Your task to perform on an android device: snooze an email in the gmail app Image 0: 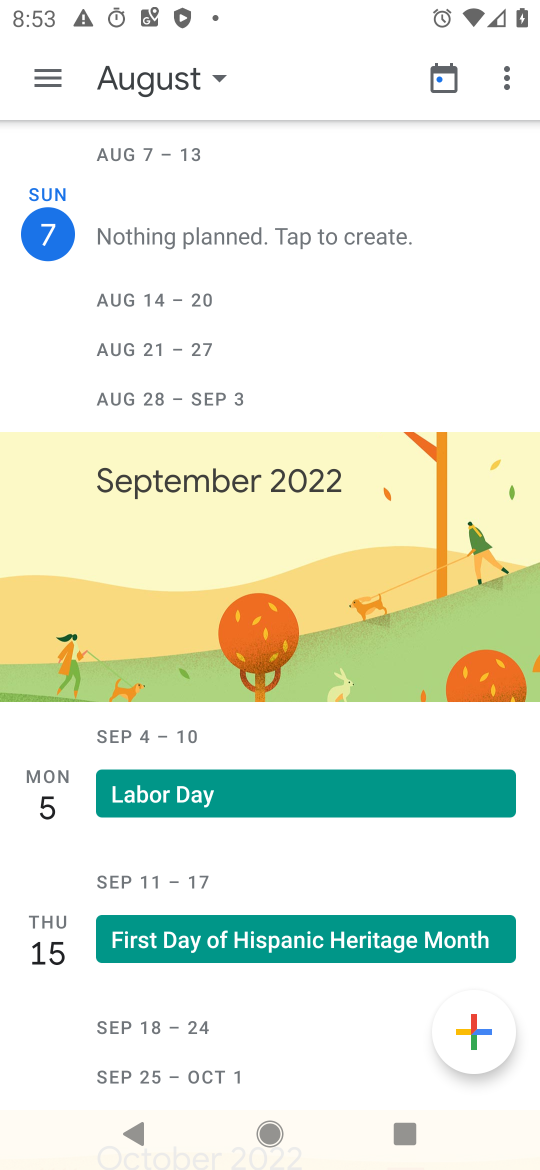
Step 0: press home button
Your task to perform on an android device: snooze an email in the gmail app Image 1: 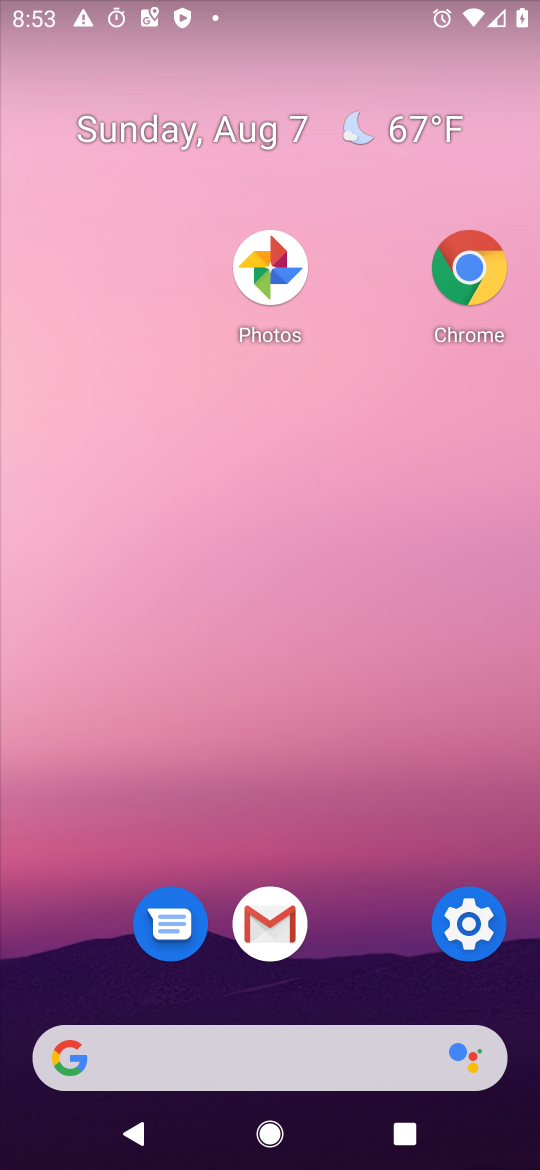
Step 1: click (280, 935)
Your task to perform on an android device: snooze an email in the gmail app Image 2: 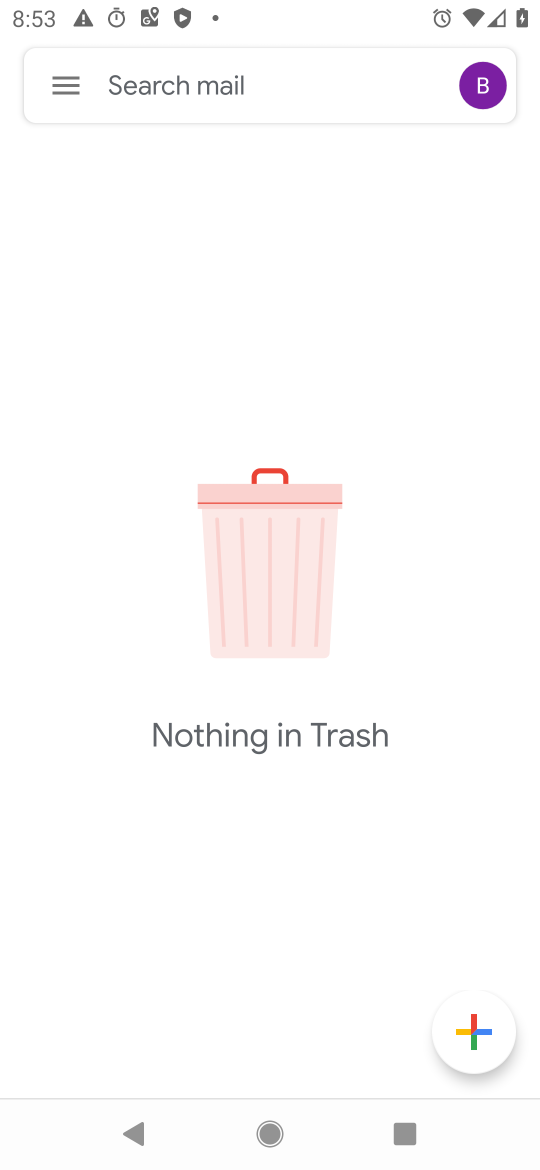
Step 2: click (62, 76)
Your task to perform on an android device: snooze an email in the gmail app Image 3: 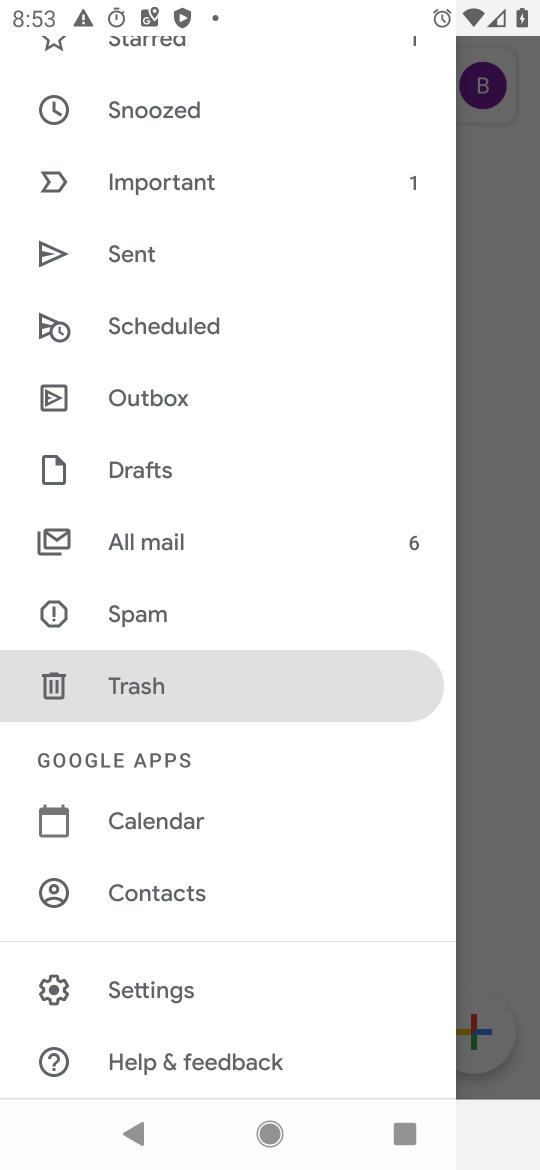
Step 3: click (180, 547)
Your task to perform on an android device: snooze an email in the gmail app Image 4: 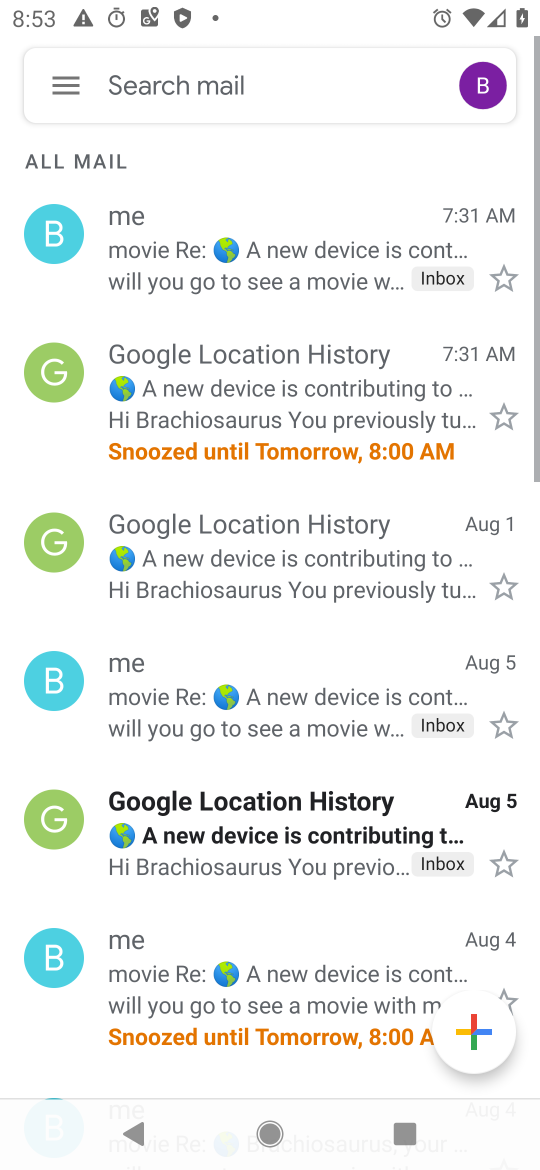
Step 4: click (208, 674)
Your task to perform on an android device: snooze an email in the gmail app Image 5: 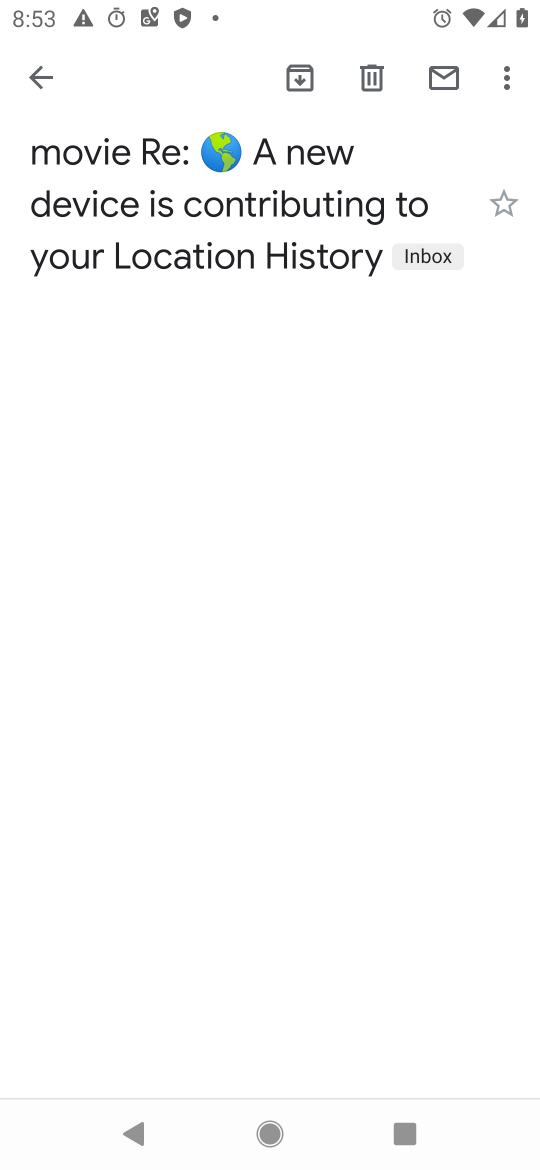
Step 5: click (499, 78)
Your task to perform on an android device: snooze an email in the gmail app Image 6: 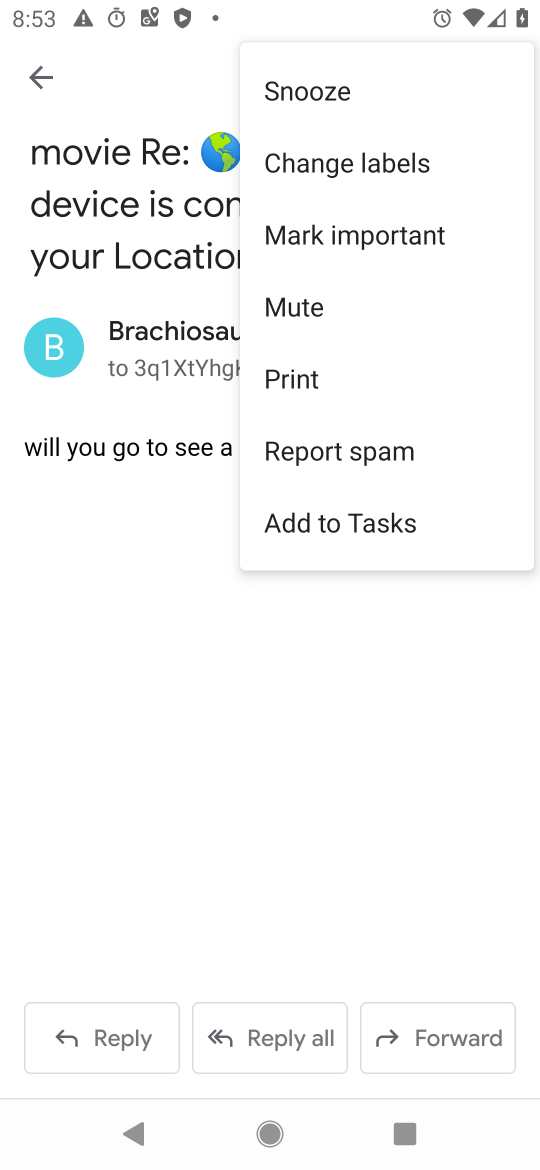
Step 6: click (322, 100)
Your task to perform on an android device: snooze an email in the gmail app Image 7: 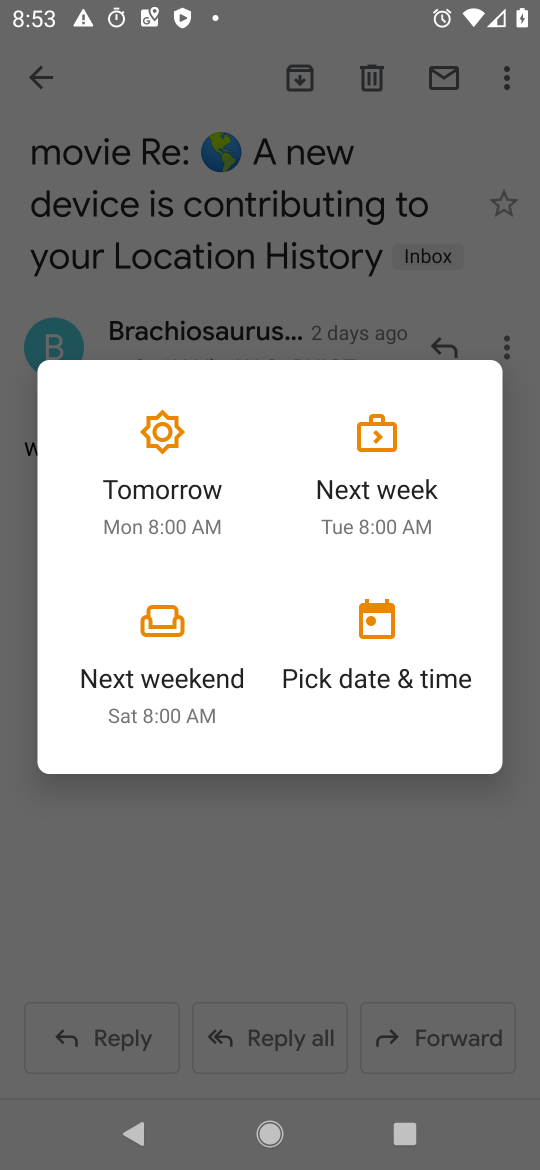
Step 7: click (184, 480)
Your task to perform on an android device: snooze an email in the gmail app Image 8: 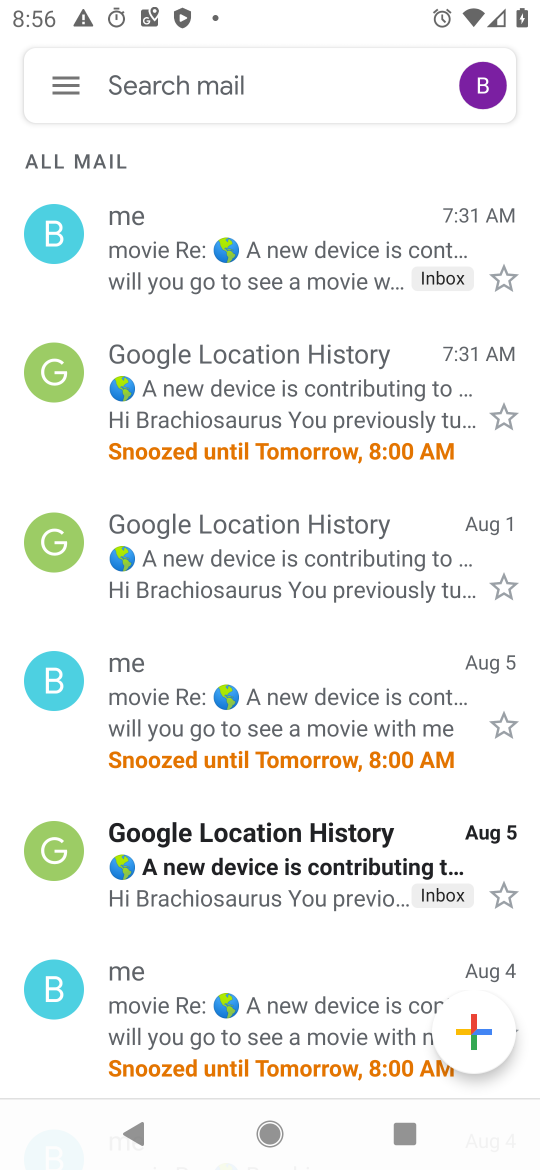
Step 8: click (78, 85)
Your task to perform on an android device: snooze an email in the gmail app Image 9: 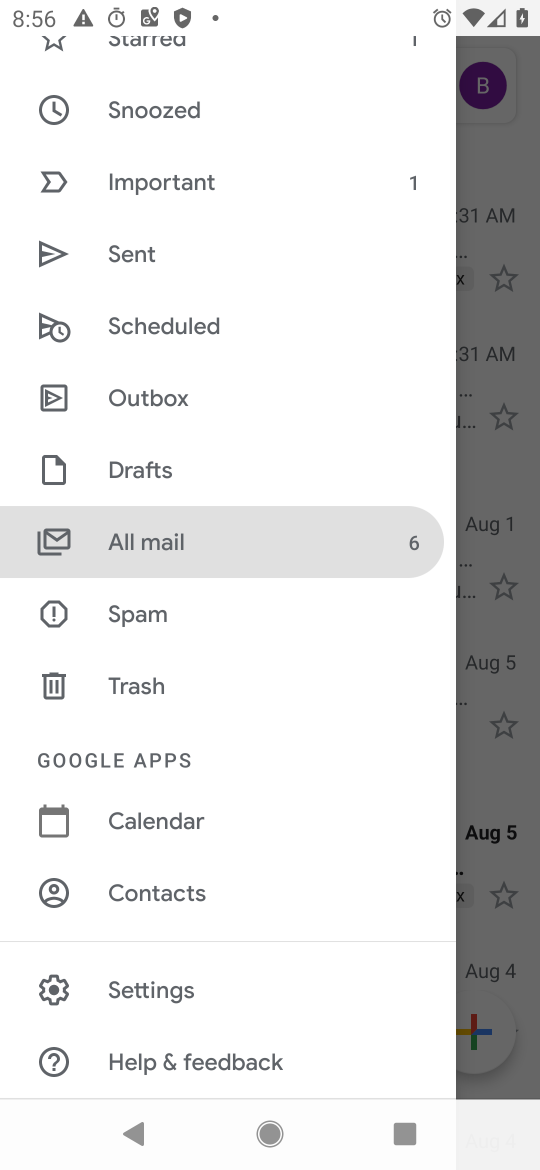
Step 9: drag from (189, 368) to (264, 501)
Your task to perform on an android device: snooze an email in the gmail app Image 10: 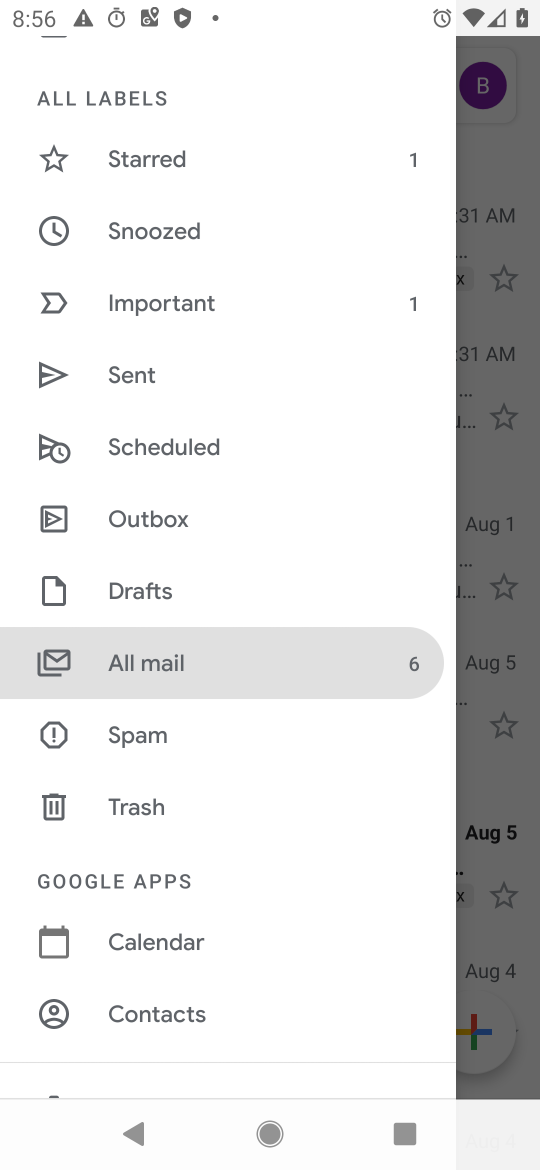
Step 10: click (167, 216)
Your task to perform on an android device: snooze an email in the gmail app Image 11: 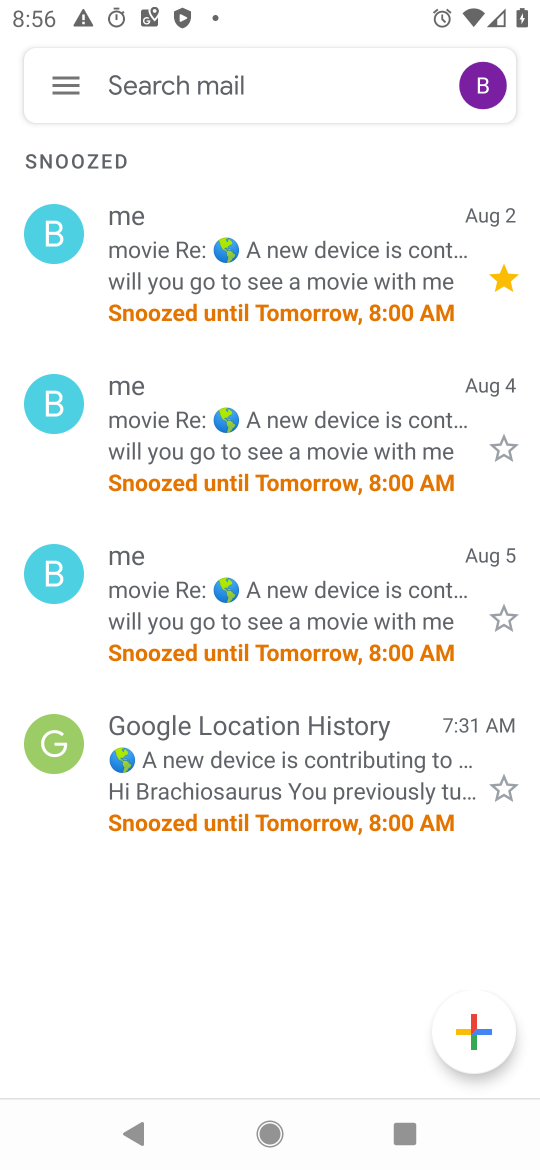
Step 11: click (280, 274)
Your task to perform on an android device: snooze an email in the gmail app Image 12: 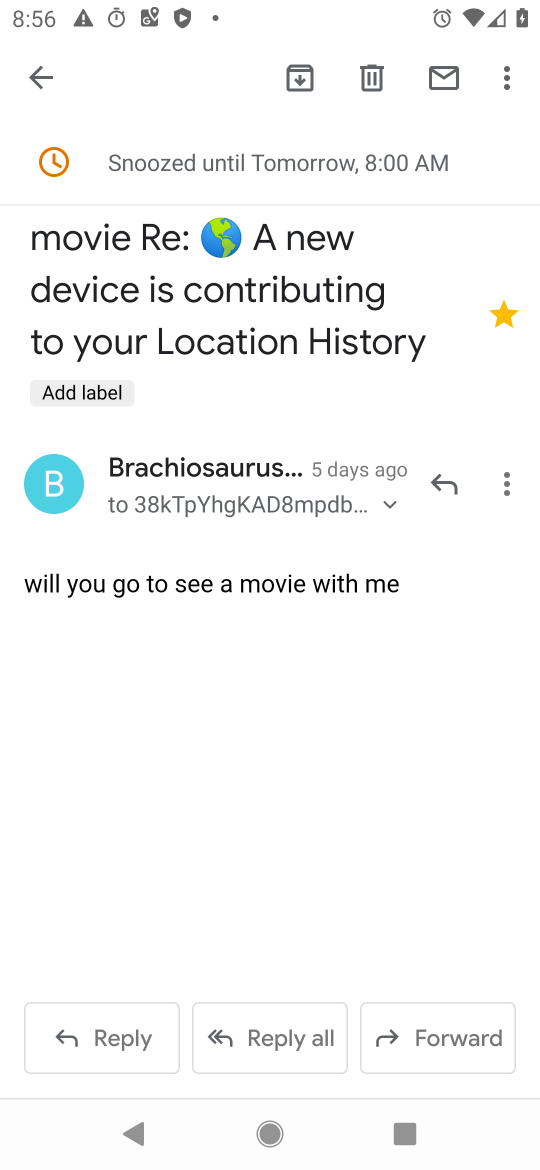
Step 12: click (501, 73)
Your task to perform on an android device: snooze an email in the gmail app Image 13: 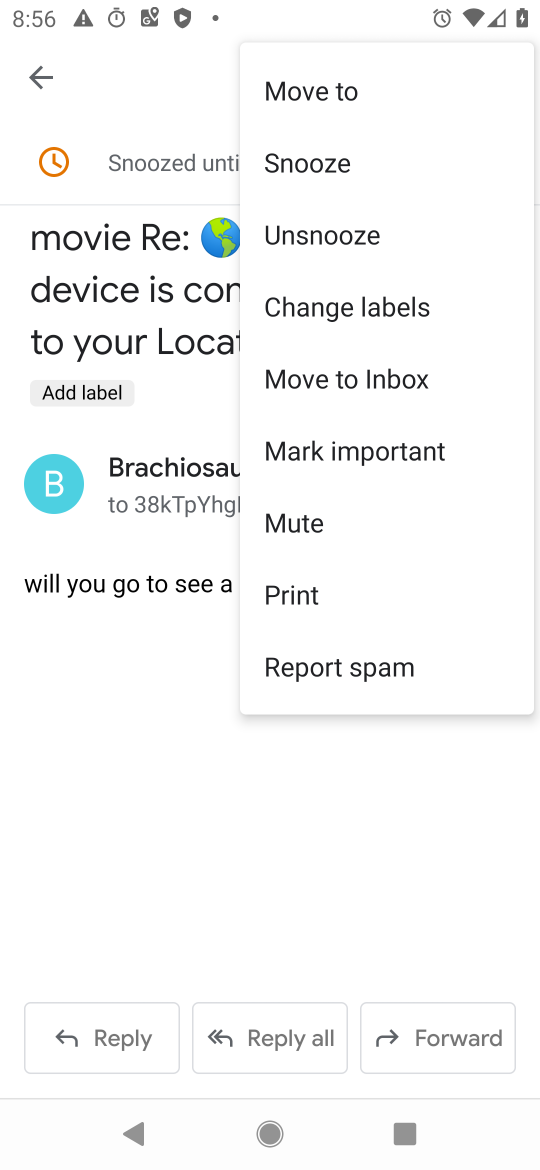
Step 13: click (358, 165)
Your task to perform on an android device: snooze an email in the gmail app Image 14: 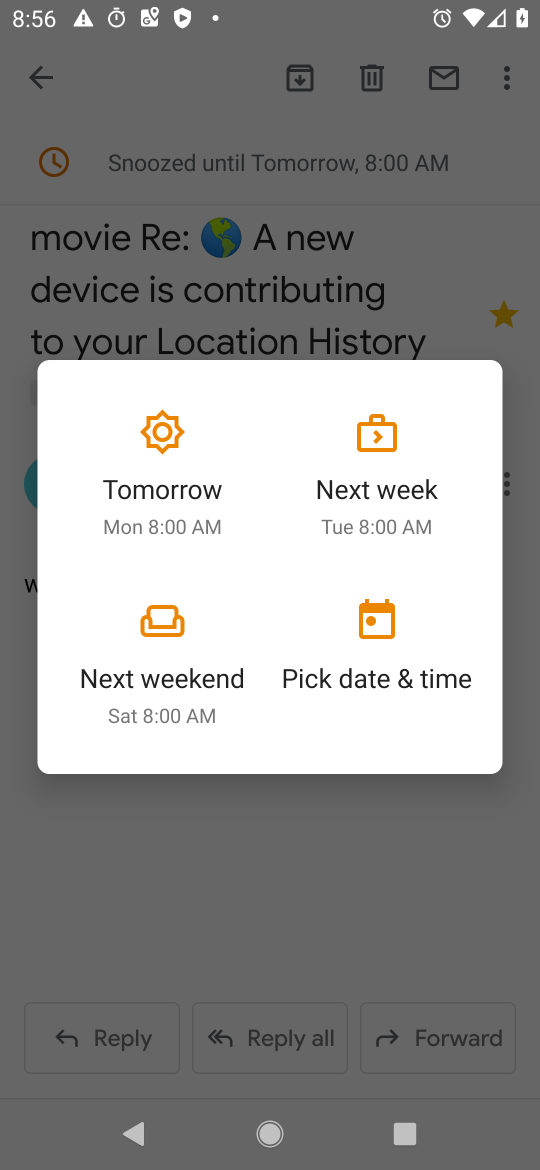
Step 14: click (328, 431)
Your task to perform on an android device: snooze an email in the gmail app Image 15: 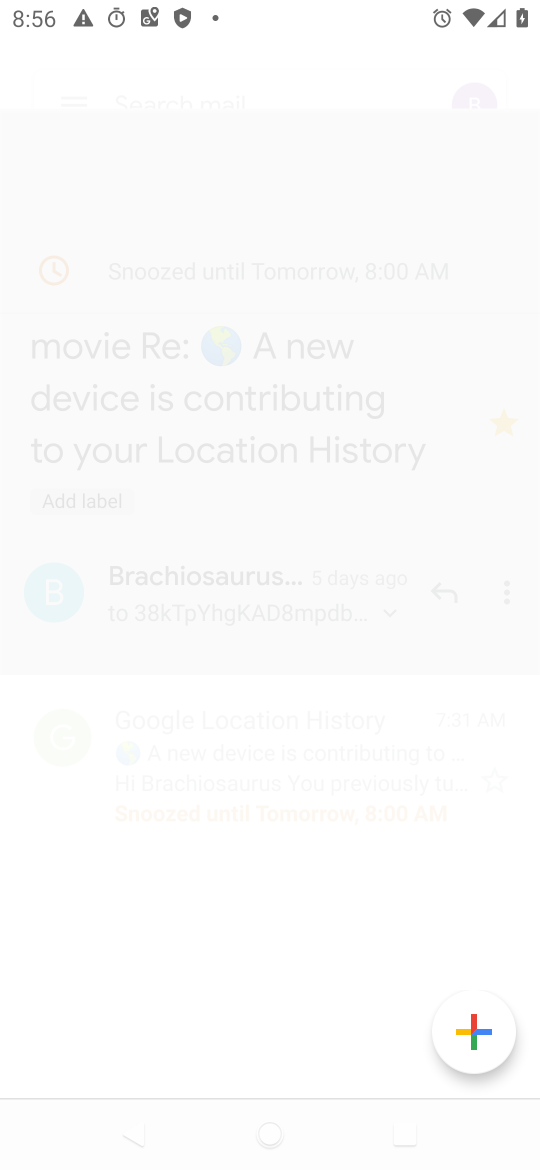
Step 15: task complete